Your task to perform on an android device: What's the weather today? Image 0: 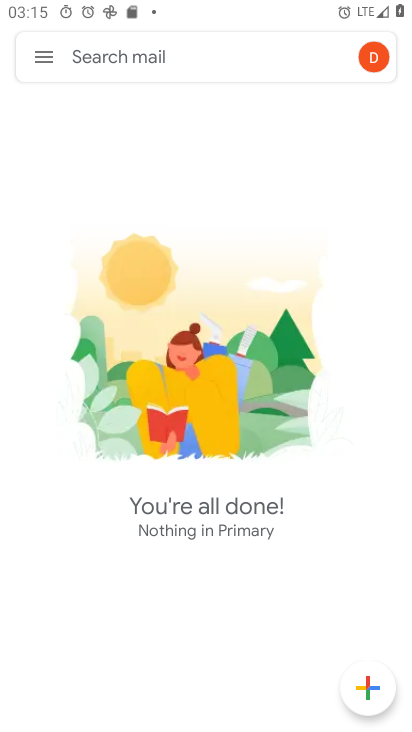
Step 0: press home button
Your task to perform on an android device: What's the weather today? Image 1: 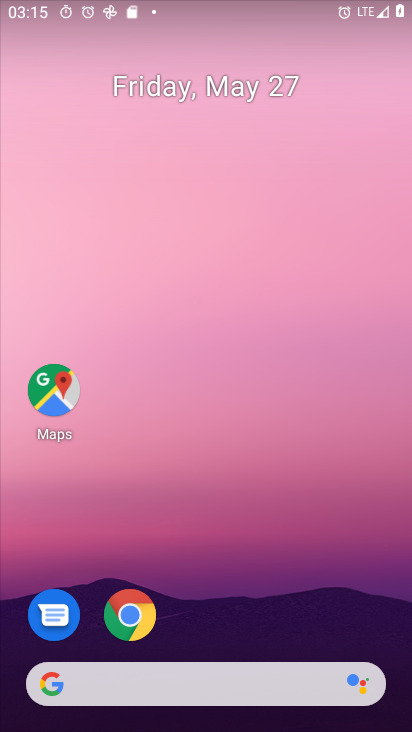
Step 1: click (179, 683)
Your task to perform on an android device: What's the weather today? Image 2: 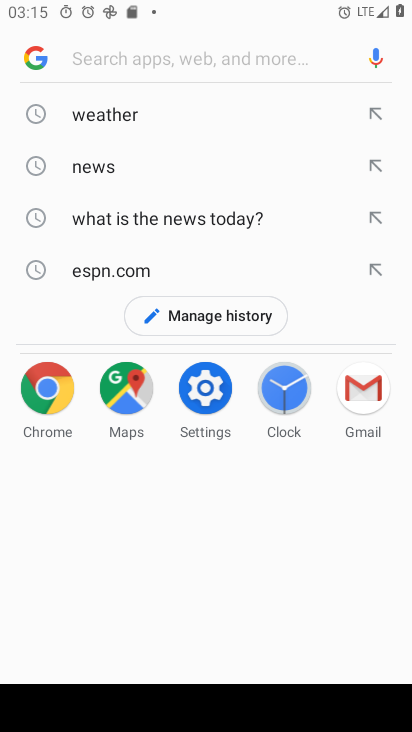
Step 2: click (128, 118)
Your task to perform on an android device: What's the weather today? Image 3: 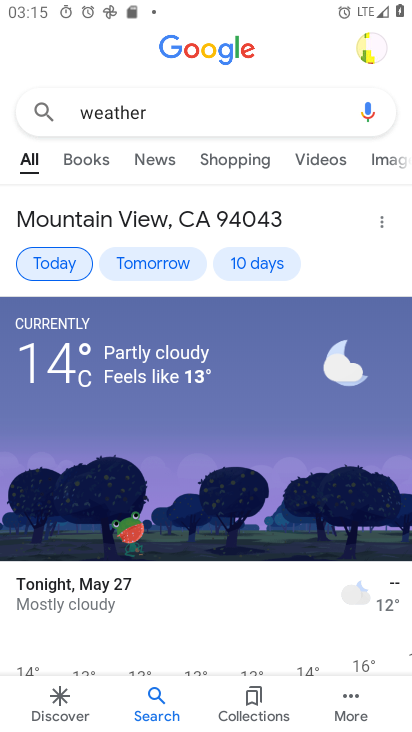
Step 3: click (61, 265)
Your task to perform on an android device: What's the weather today? Image 4: 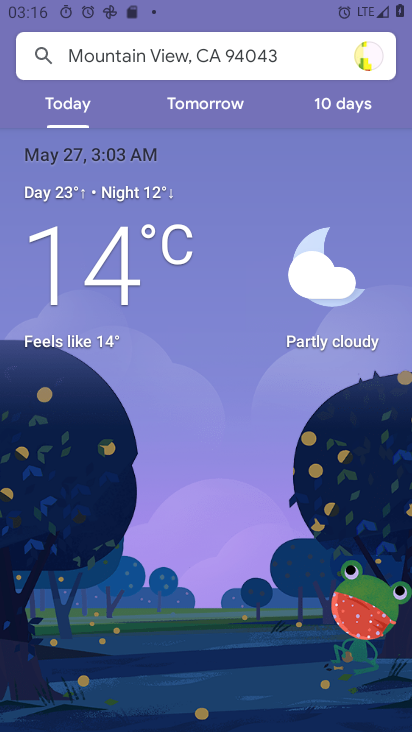
Step 4: task complete